Your task to perform on an android device: Empty the shopping cart on amazon.com. Search for "alienware area 51" on amazon.com, select the first entry, and add it to the cart. Image 0: 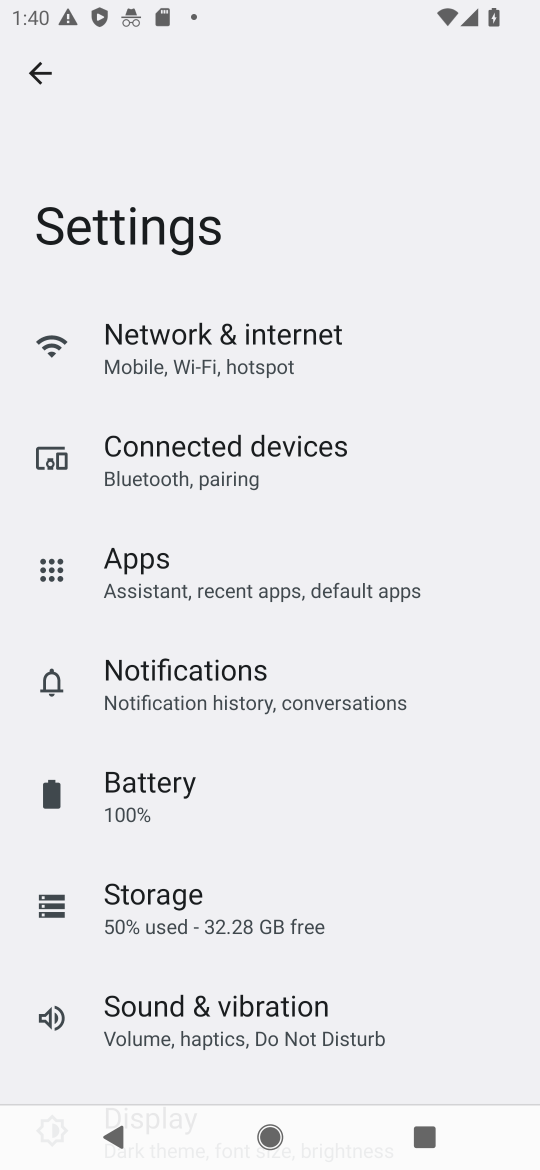
Step 0: press home button
Your task to perform on an android device: Empty the shopping cart on amazon.com. Search for "alienware area 51" on amazon.com, select the first entry, and add it to the cart. Image 1: 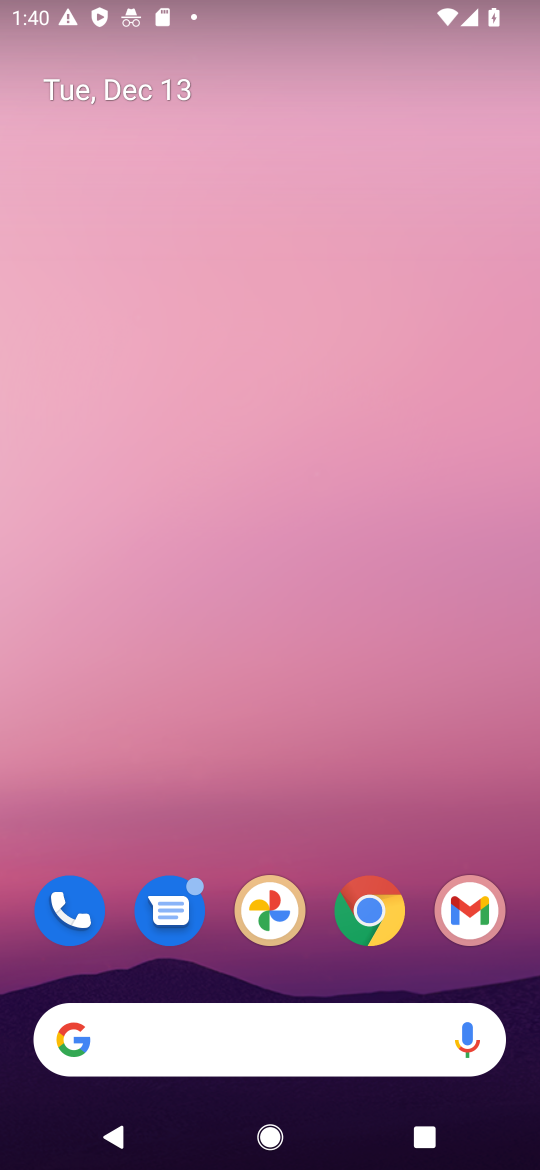
Step 1: click (370, 920)
Your task to perform on an android device: Empty the shopping cart on amazon.com. Search for "alienware area 51" on amazon.com, select the first entry, and add it to the cart. Image 2: 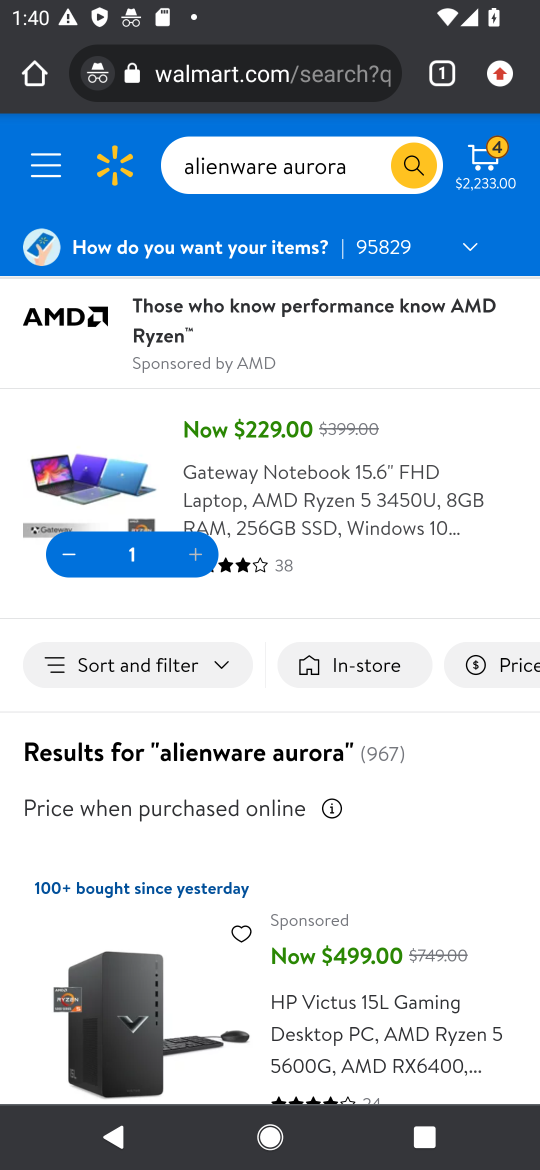
Step 2: click (229, 71)
Your task to perform on an android device: Empty the shopping cart on amazon.com. Search for "alienware area 51" on amazon.com, select the first entry, and add it to the cart. Image 3: 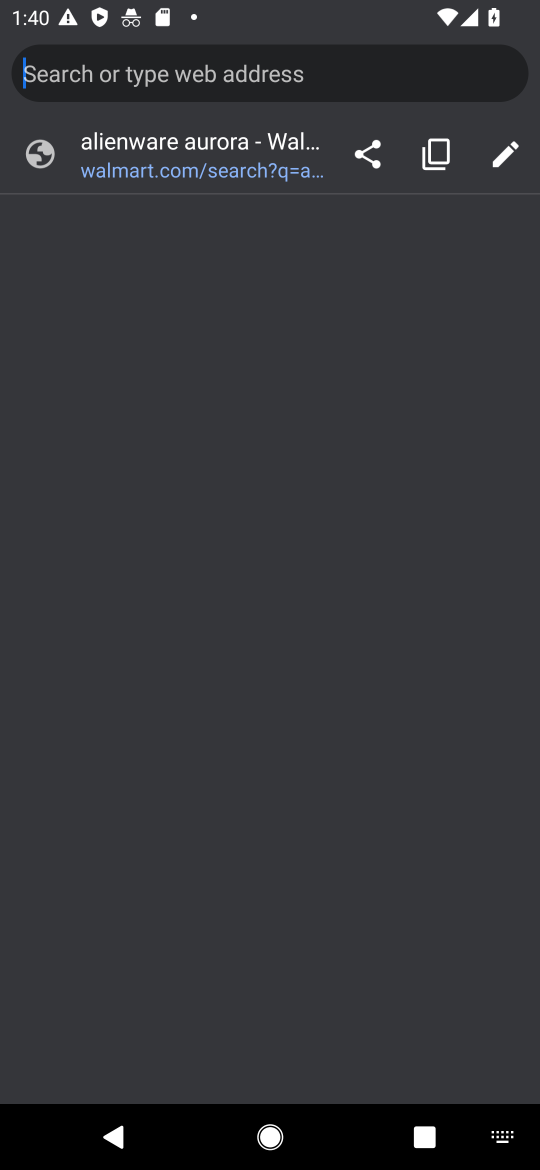
Step 3: type "AMAZON"
Your task to perform on an android device: Empty the shopping cart on amazon.com. Search for "alienware area 51" on amazon.com, select the first entry, and add it to the cart. Image 4: 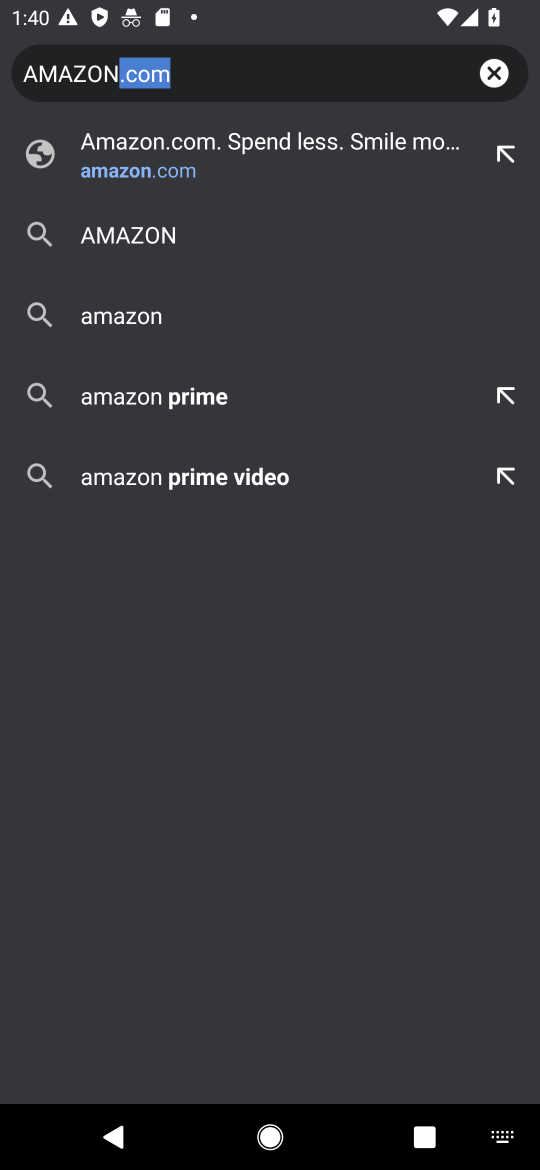
Step 4: click (224, 151)
Your task to perform on an android device: Empty the shopping cart on amazon.com. Search for "alienware area 51" on amazon.com, select the first entry, and add it to the cart. Image 5: 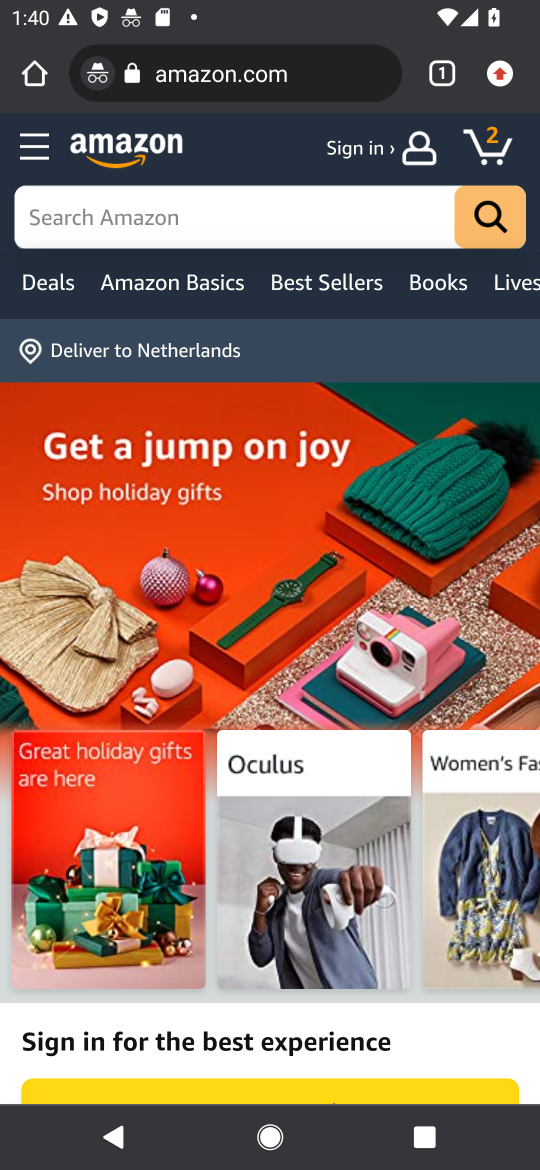
Step 5: click (313, 217)
Your task to perform on an android device: Empty the shopping cart on amazon.com. Search for "alienware area 51" on amazon.com, select the first entry, and add it to the cart. Image 6: 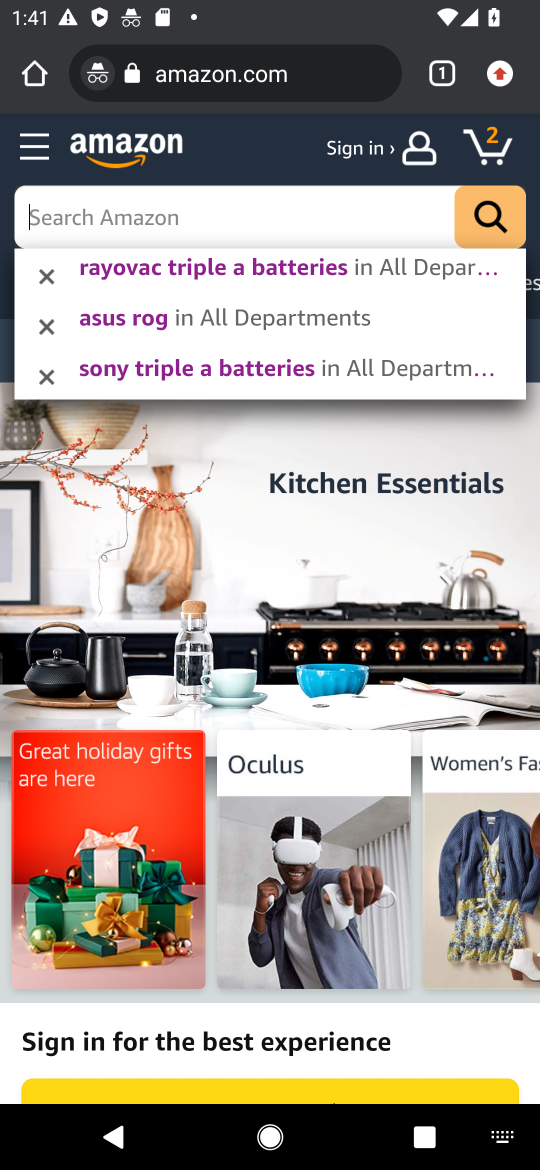
Step 6: type "ALIENWARE AREA 51"
Your task to perform on an android device: Empty the shopping cart on amazon.com. Search for "alienware area 51" on amazon.com, select the first entry, and add it to the cart. Image 7: 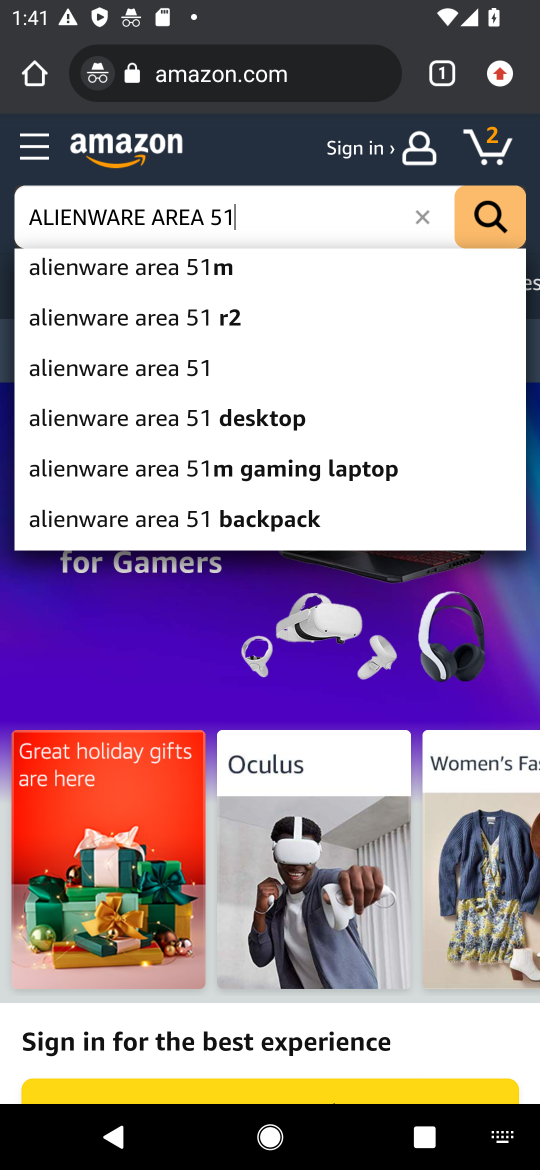
Step 7: click (189, 269)
Your task to perform on an android device: Empty the shopping cart on amazon.com. Search for "alienware area 51" on amazon.com, select the first entry, and add it to the cart. Image 8: 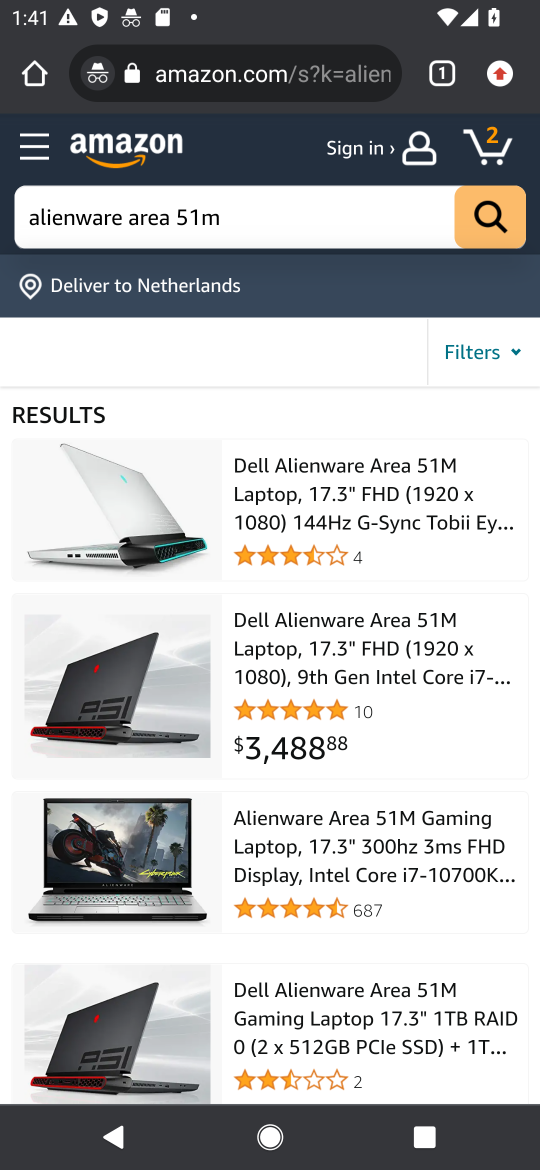
Step 8: click (397, 525)
Your task to perform on an android device: Empty the shopping cart on amazon.com. Search for "alienware area 51" on amazon.com, select the first entry, and add it to the cart. Image 9: 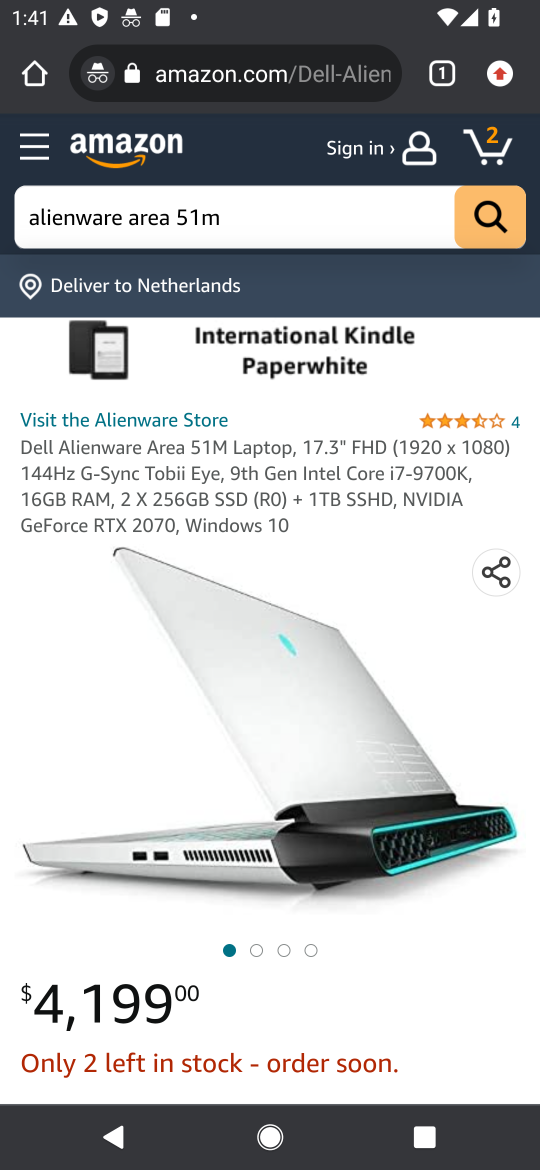
Step 9: drag from (393, 1004) to (359, 305)
Your task to perform on an android device: Empty the shopping cart on amazon.com. Search for "alienware area 51" on amazon.com, select the first entry, and add it to the cart. Image 10: 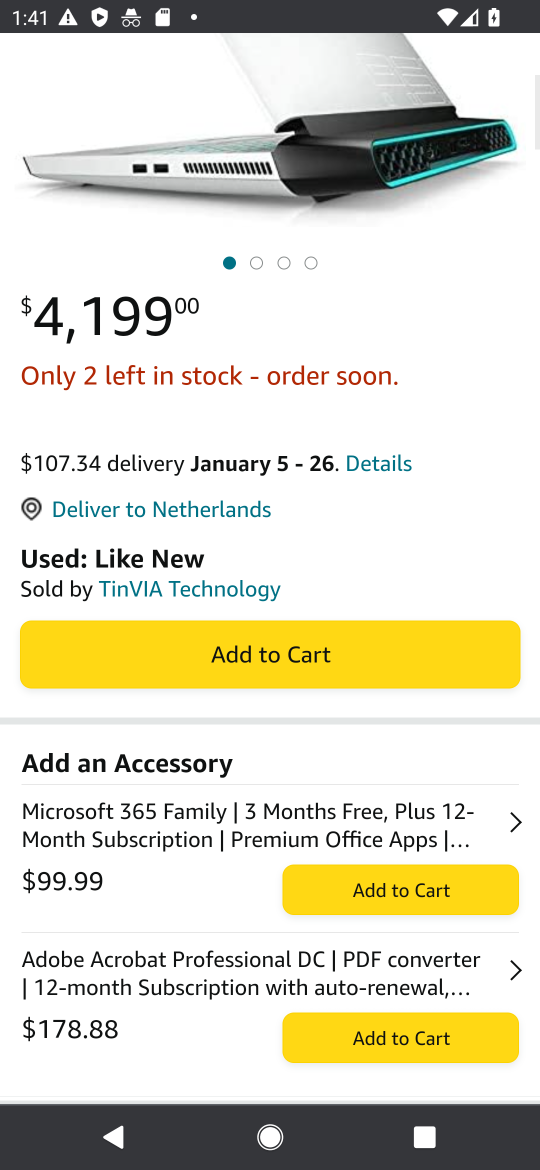
Step 10: click (278, 650)
Your task to perform on an android device: Empty the shopping cart on amazon.com. Search for "alienware area 51" on amazon.com, select the first entry, and add it to the cart. Image 11: 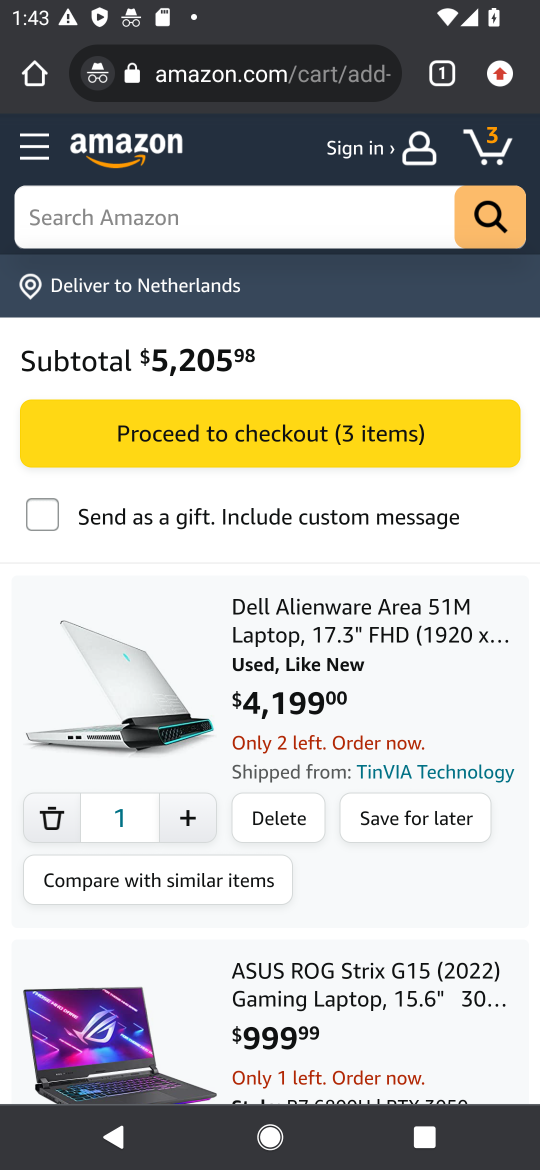
Step 11: task complete